Your task to perform on an android device: turn off wifi Image 0: 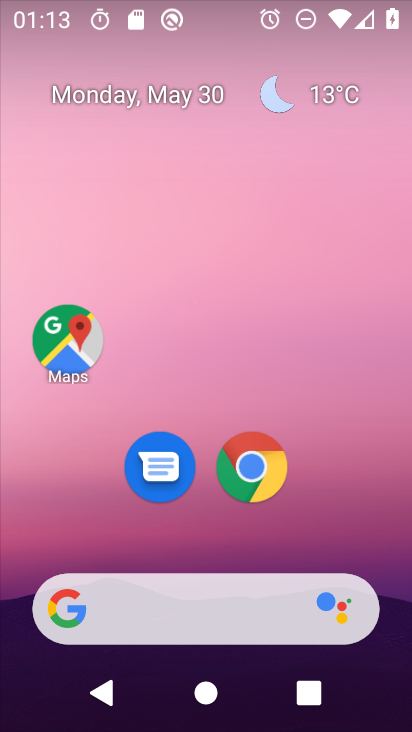
Step 0: drag from (187, 539) to (187, 268)
Your task to perform on an android device: turn off wifi Image 1: 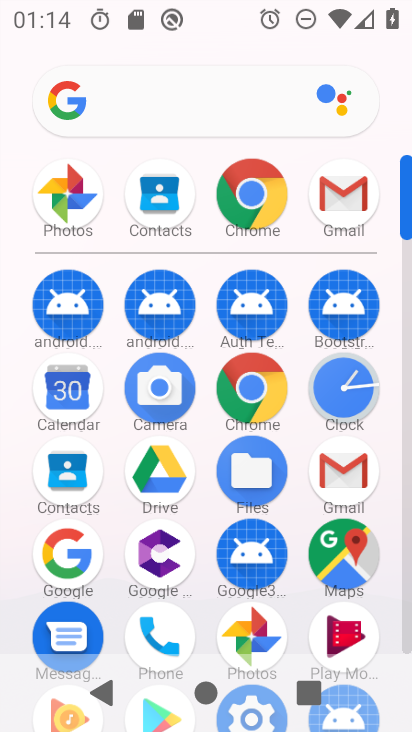
Step 1: drag from (191, 512) to (221, 274)
Your task to perform on an android device: turn off wifi Image 2: 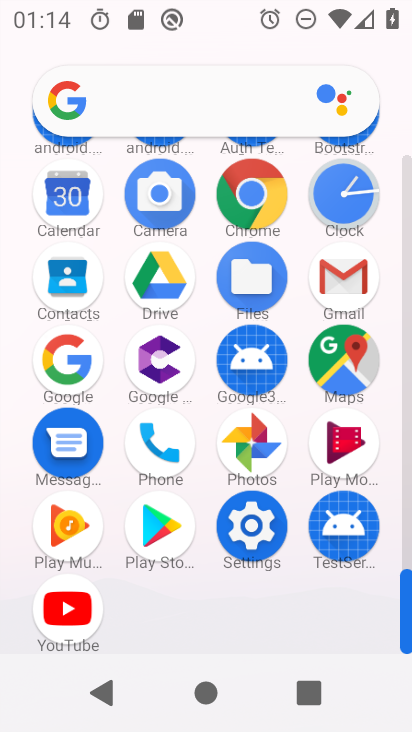
Step 2: click (241, 531)
Your task to perform on an android device: turn off wifi Image 3: 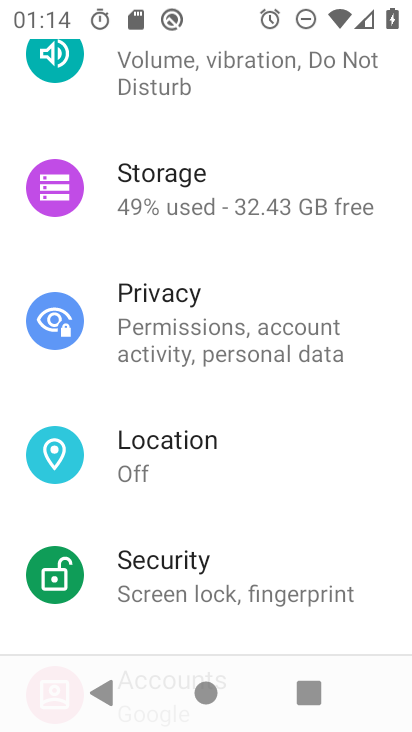
Step 3: drag from (221, 217) to (253, 548)
Your task to perform on an android device: turn off wifi Image 4: 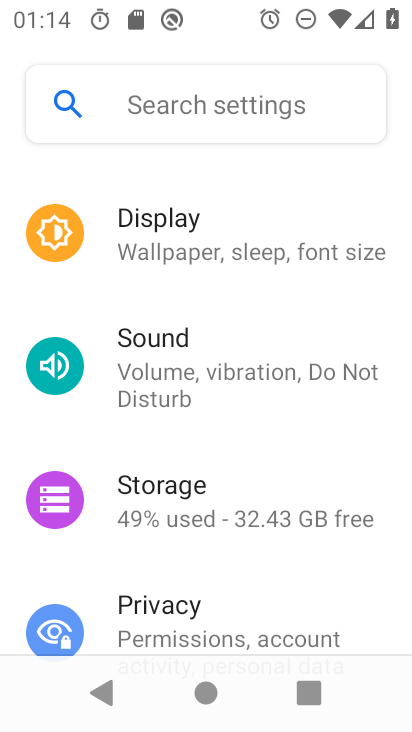
Step 4: drag from (240, 206) to (246, 506)
Your task to perform on an android device: turn off wifi Image 5: 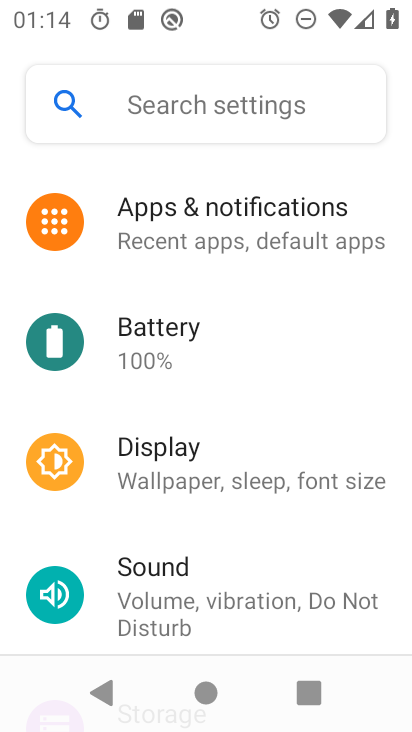
Step 5: drag from (227, 241) to (227, 580)
Your task to perform on an android device: turn off wifi Image 6: 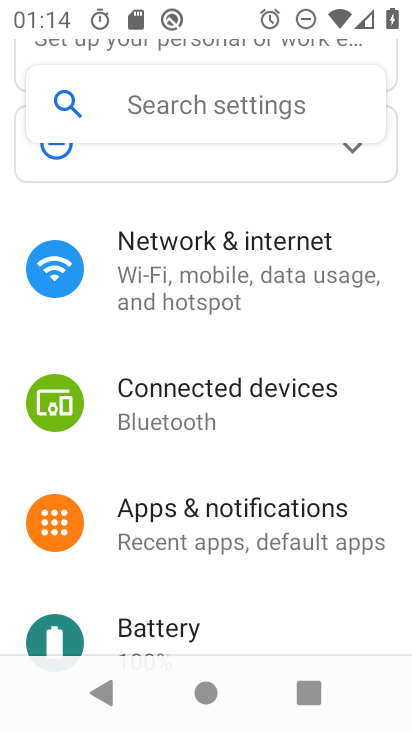
Step 6: click (188, 256)
Your task to perform on an android device: turn off wifi Image 7: 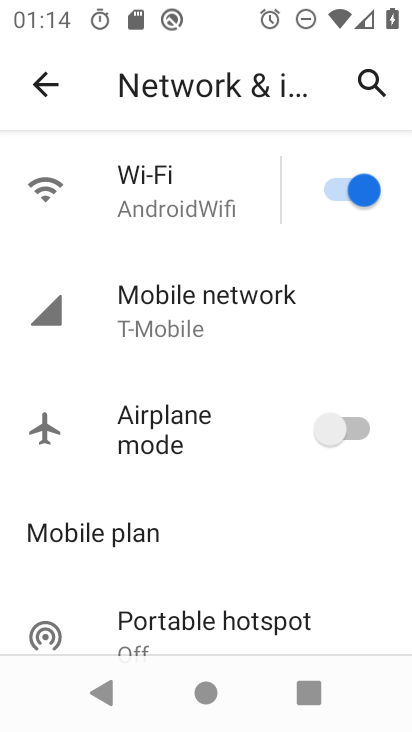
Step 7: click (325, 184)
Your task to perform on an android device: turn off wifi Image 8: 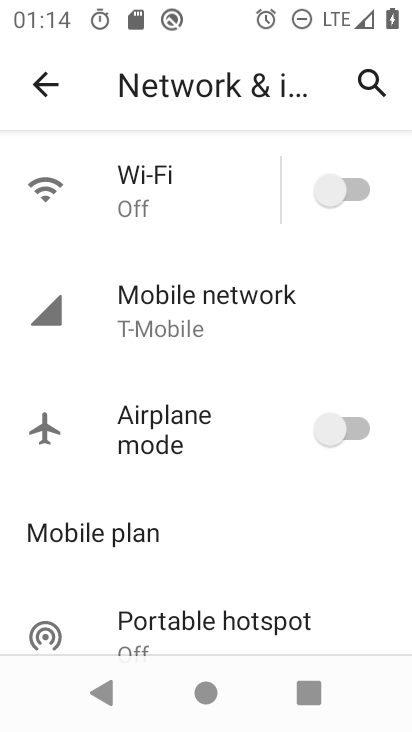
Step 8: task complete